Your task to perform on an android device: turn on notifications settings in the gmail app Image 0: 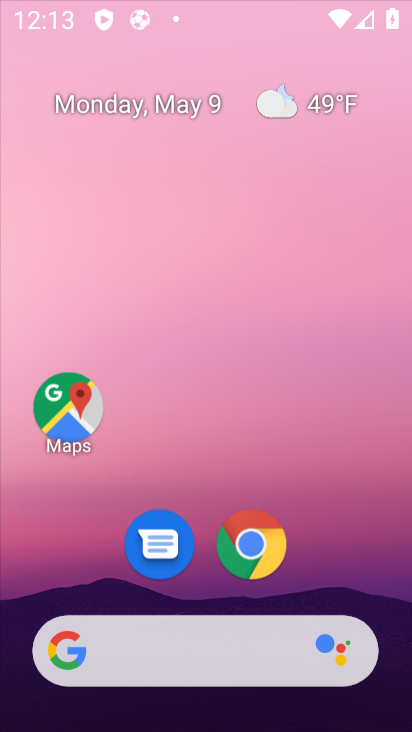
Step 0: drag from (304, 619) to (346, 115)
Your task to perform on an android device: turn on notifications settings in the gmail app Image 1: 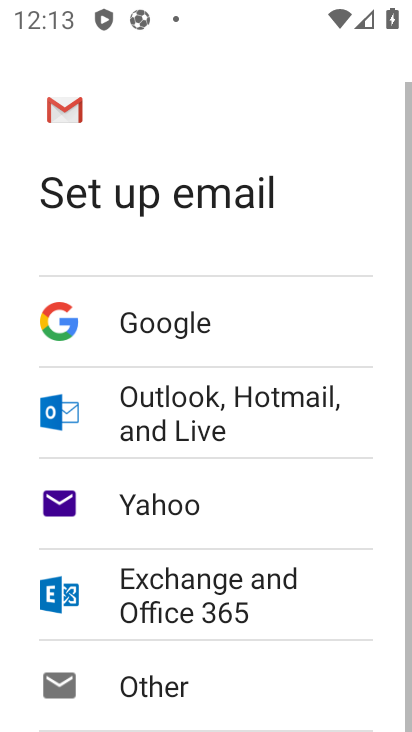
Step 1: press home button
Your task to perform on an android device: turn on notifications settings in the gmail app Image 2: 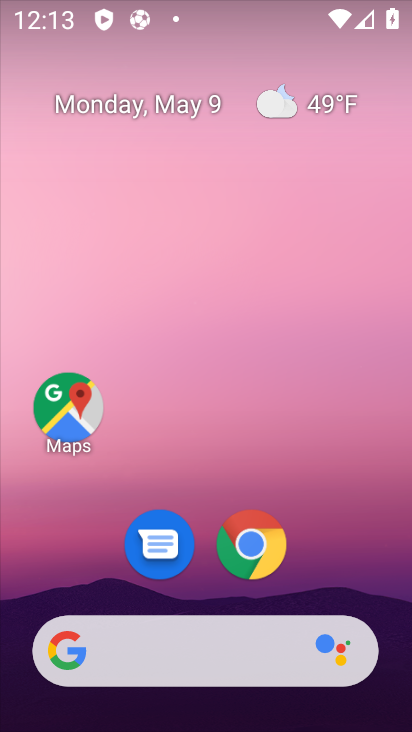
Step 2: drag from (267, 623) to (339, 5)
Your task to perform on an android device: turn on notifications settings in the gmail app Image 3: 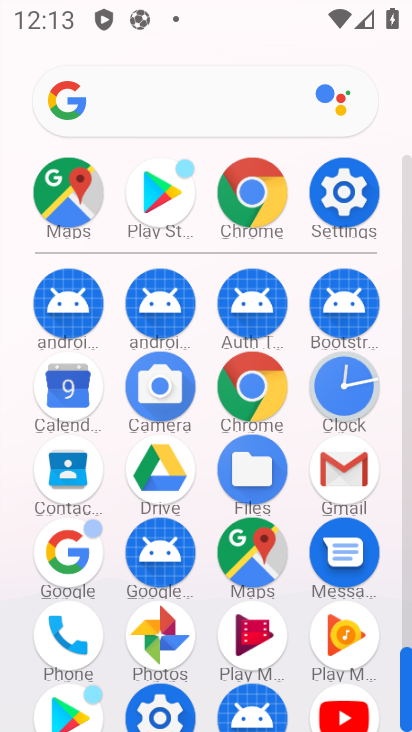
Step 3: click (356, 482)
Your task to perform on an android device: turn on notifications settings in the gmail app Image 4: 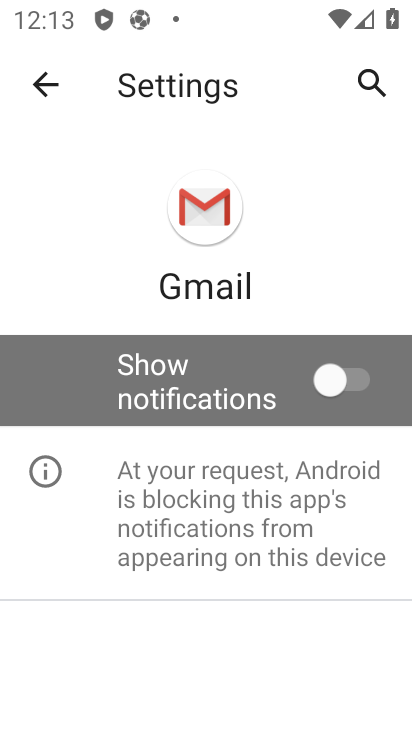
Step 4: click (359, 379)
Your task to perform on an android device: turn on notifications settings in the gmail app Image 5: 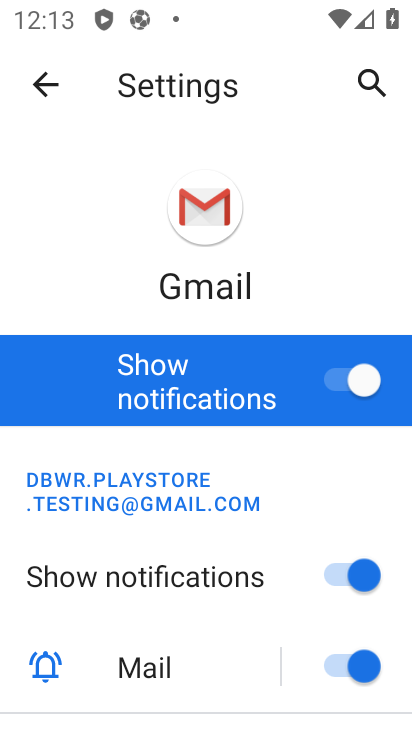
Step 5: task complete